Your task to perform on an android device: When is my next meeting? Image 0: 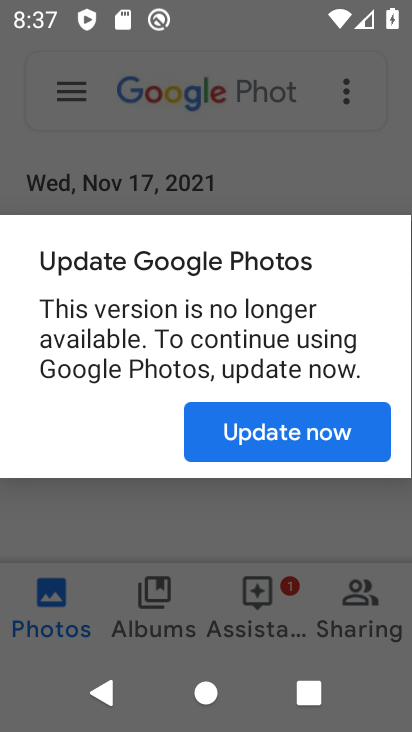
Step 0: press back button
Your task to perform on an android device: When is my next meeting? Image 1: 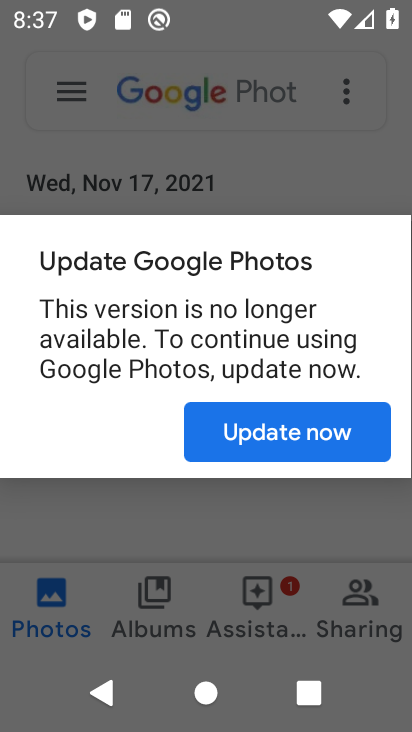
Step 1: press back button
Your task to perform on an android device: When is my next meeting? Image 2: 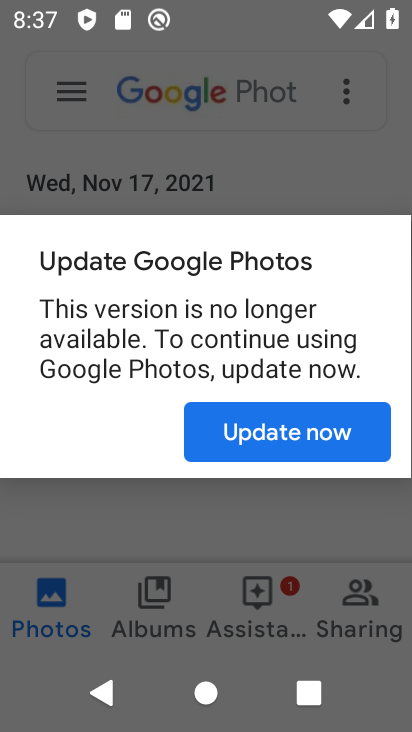
Step 2: press back button
Your task to perform on an android device: When is my next meeting? Image 3: 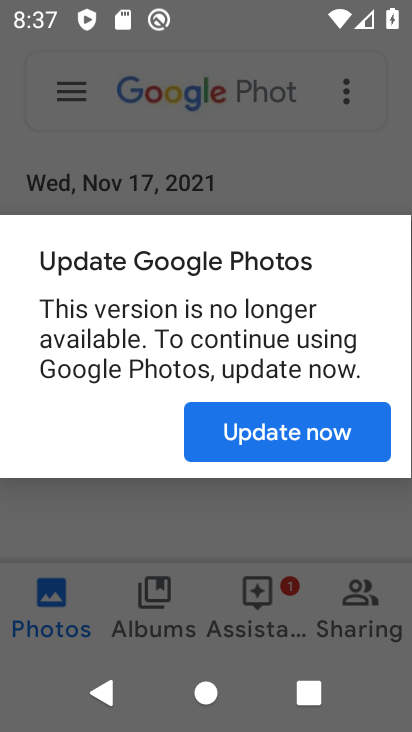
Step 3: press back button
Your task to perform on an android device: When is my next meeting? Image 4: 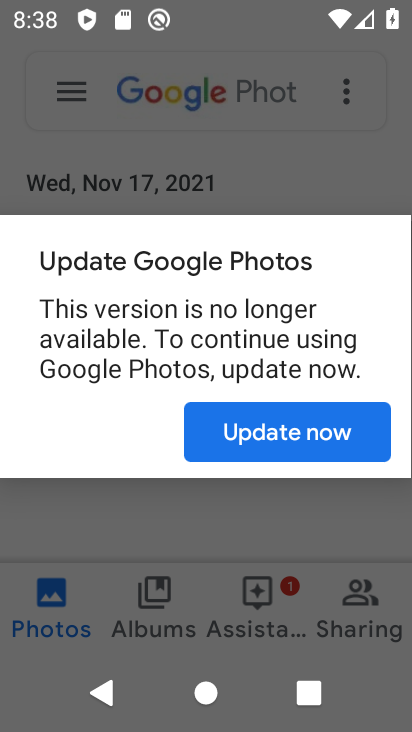
Step 4: press back button
Your task to perform on an android device: When is my next meeting? Image 5: 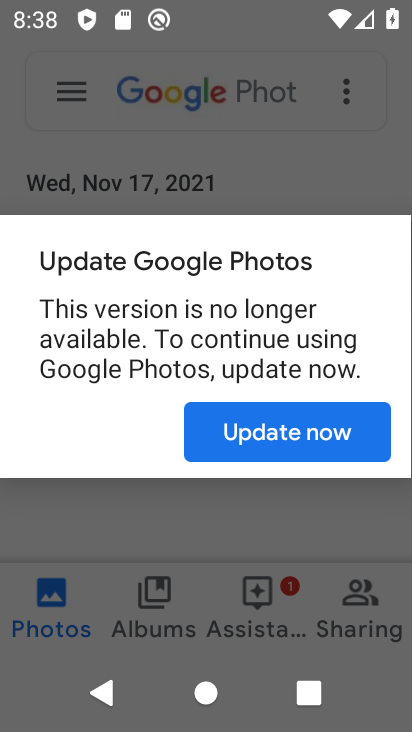
Step 5: press home button
Your task to perform on an android device: When is my next meeting? Image 6: 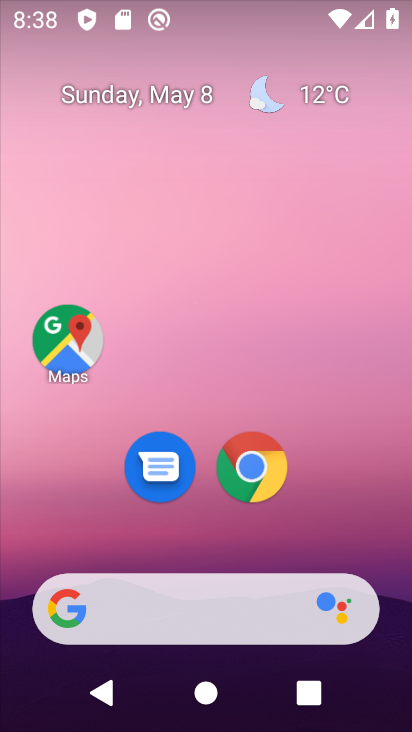
Step 6: drag from (220, 512) to (231, 113)
Your task to perform on an android device: When is my next meeting? Image 7: 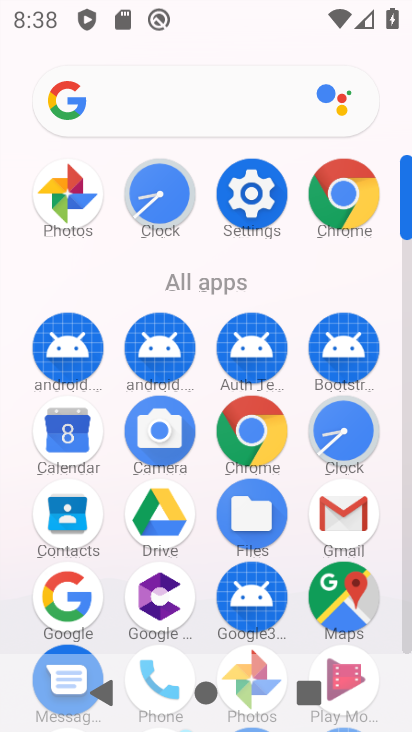
Step 7: click (73, 449)
Your task to perform on an android device: When is my next meeting? Image 8: 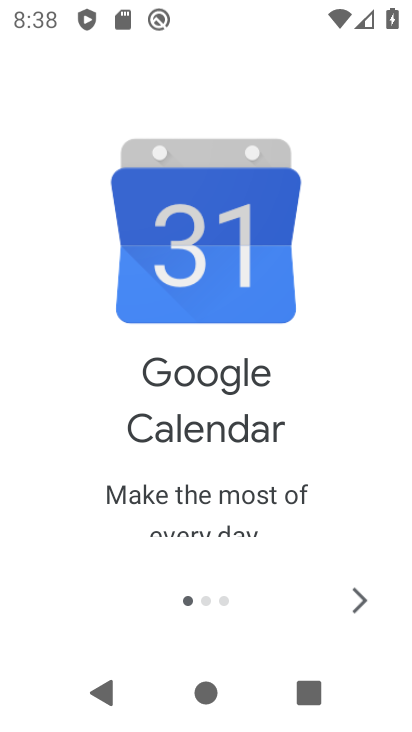
Step 8: click (351, 589)
Your task to perform on an android device: When is my next meeting? Image 9: 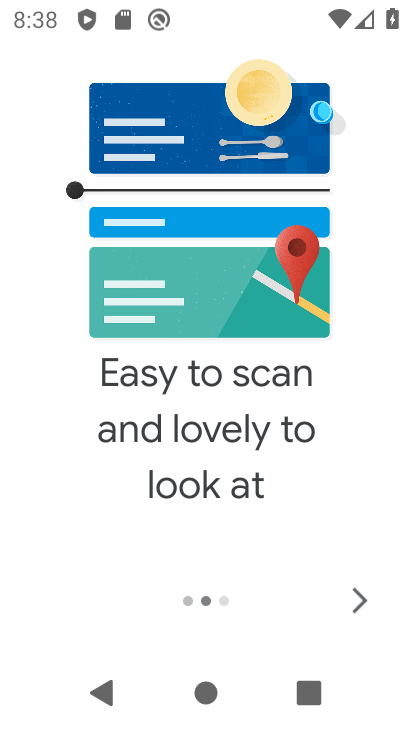
Step 9: click (350, 588)
Your task to perform on an android device: When is my next meeting? Image 10: 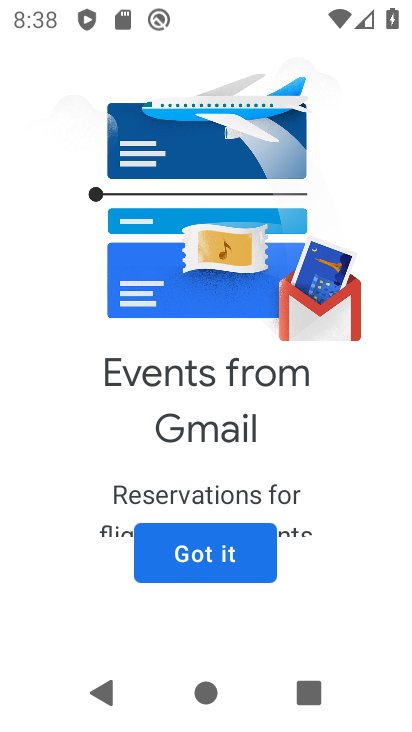
Step 10: click (344, 586)
Your task to perform on an android device: When is my next meeting? Image 11: 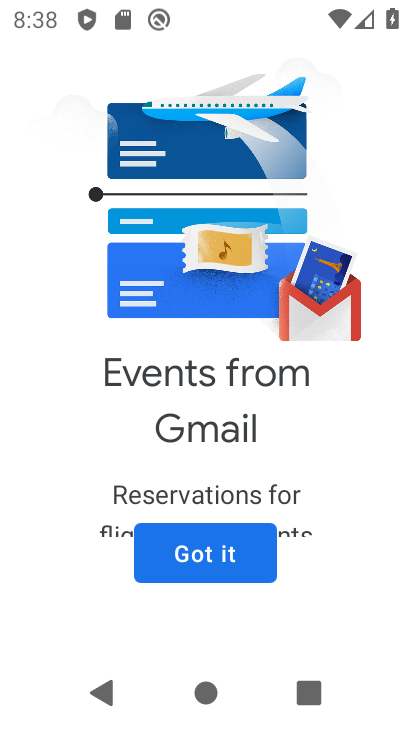
Step 11: click (196, 558)
Your task to perform on an android device: When is my next meeting? Image 12: 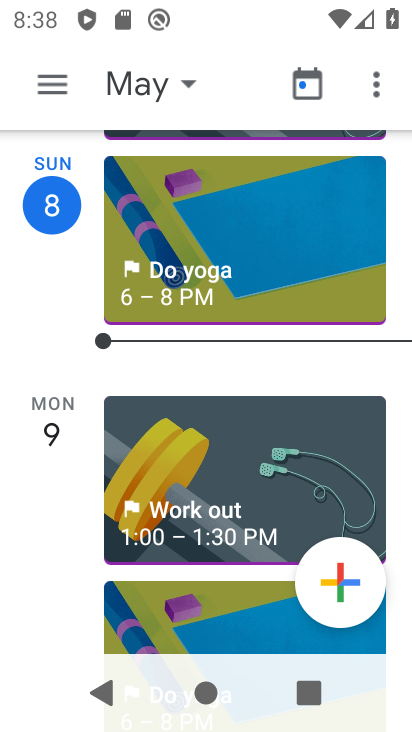
Step 12: click (50, 81)
Your task to perform on an android device: When is my next meeting? Image 13: 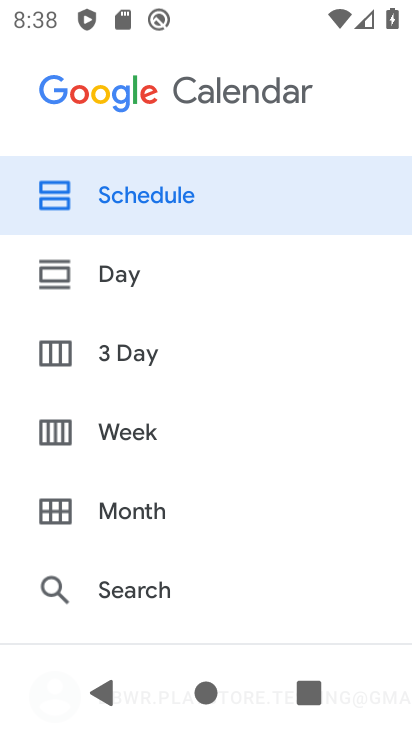
Step 13: click (112, 182)
Your task to perform on an android device: When is my next meeting? Image 14: 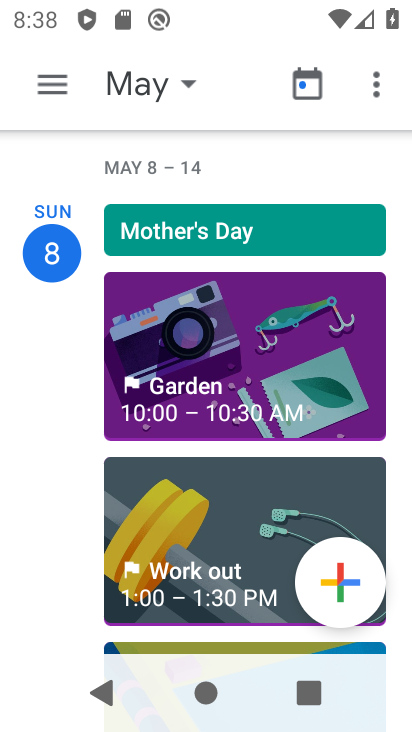
Step 14: drag from (216, 619) to (310, 155)
Your task to perform on an android device: When is my next meeting? Image 15: 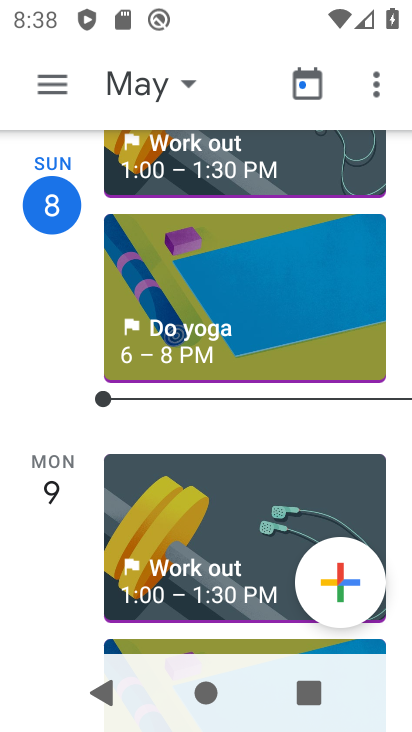
Step 15: drag from (189, 583) to (312, 89)
Your task to perform on an android device: When is my next meeting? Image 16: 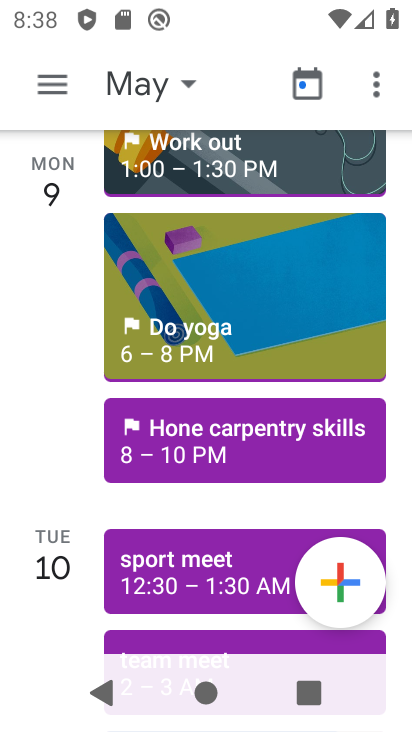
Step 16: drag from (216, 553) to (243, 339)
Your task to perform on an android device: When is my next meeting? Image 17: 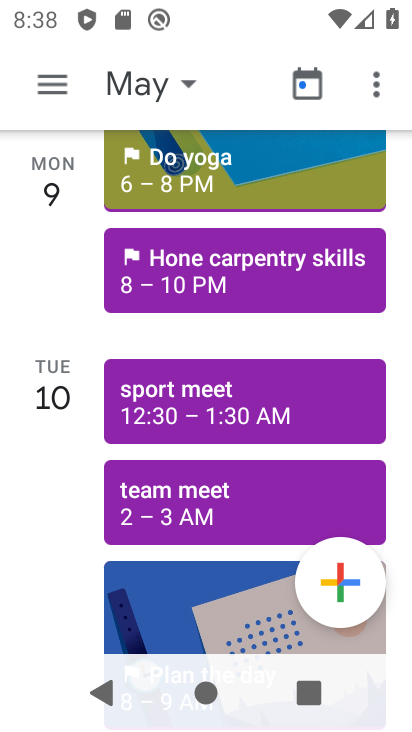
Step 17: click (159, 506)
Your task to perform on an android device: When is my next meeting? Image 18: 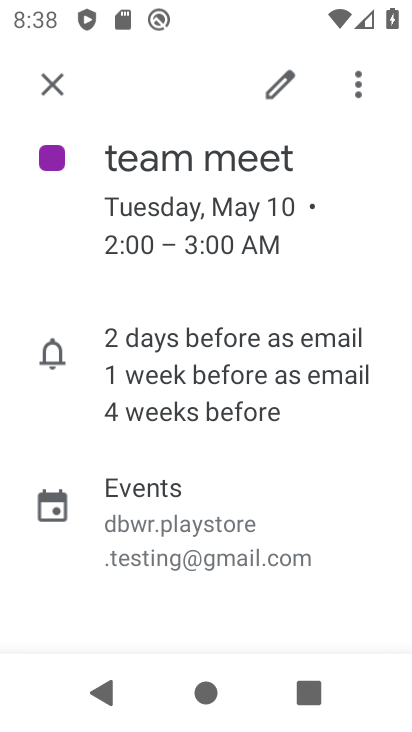
Step 18: task complete